Your task to perform on an android device: star an email in the gmail app Image 0: 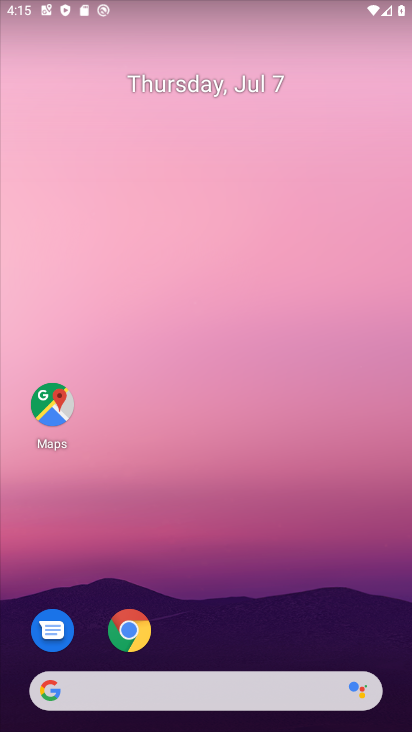
Step 0: drag from (215, 637) to (224, 78)
Your task to perform on an android device: star an email in the gmail app Image 1: 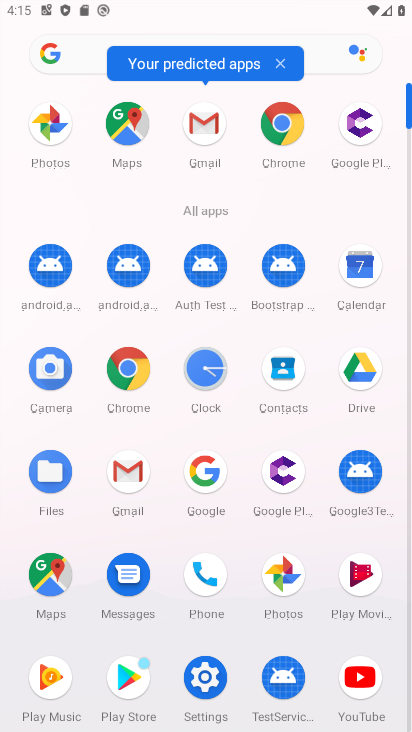
Step 1: click (203, 129)
Your task to perform on an android device: star an email in the gmail app Image 2: 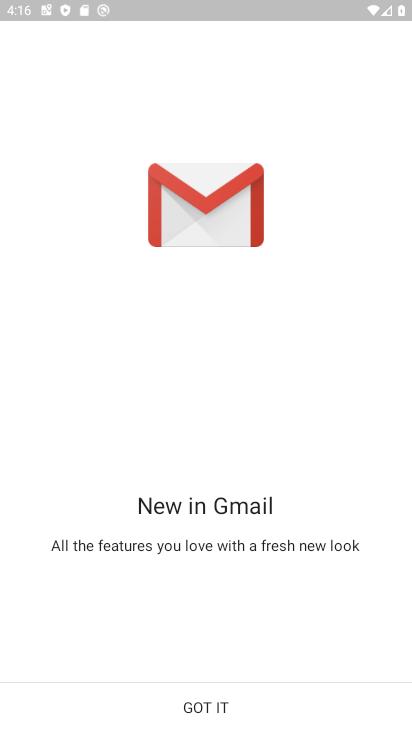
Step 2: click (175, 721)
Your task to perform on an android device: star an email in the gmail app Image 3: 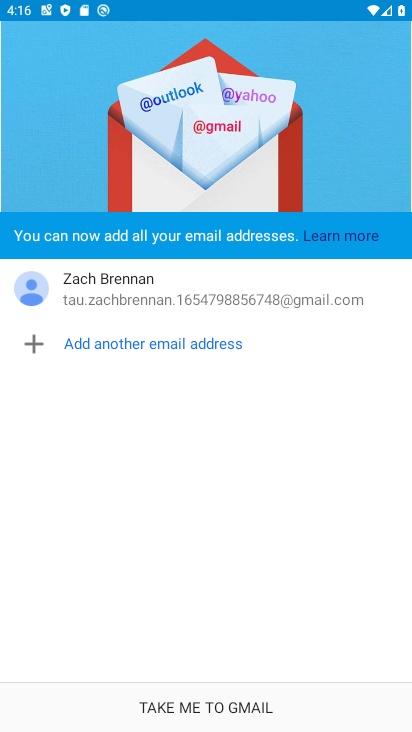
Step 3: click (153, 715)
Your task to perform on an android device: star an email in the gmail app Image 4: 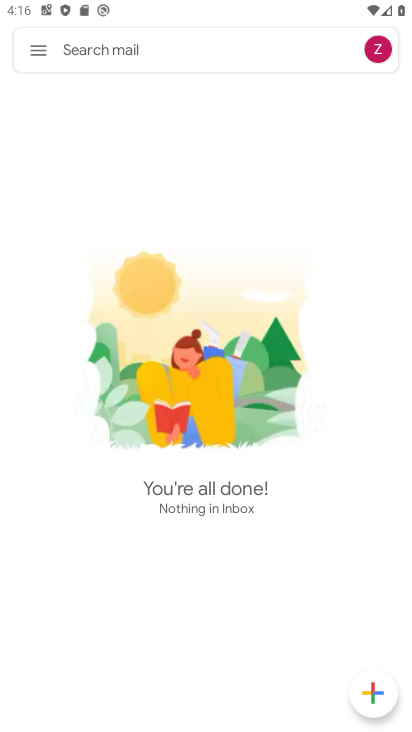
Step 4: task complete